Your task to perform on an android device: toggle notifications settings in the gmail app Image 0: 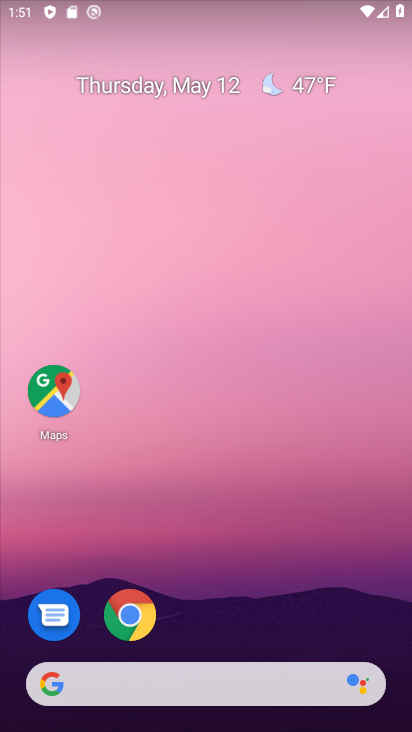
Step 0: drag from (284, 615) to (243, 132)
Your task to perform on an android device: toggle notifications settings in the gmail app Image 1: 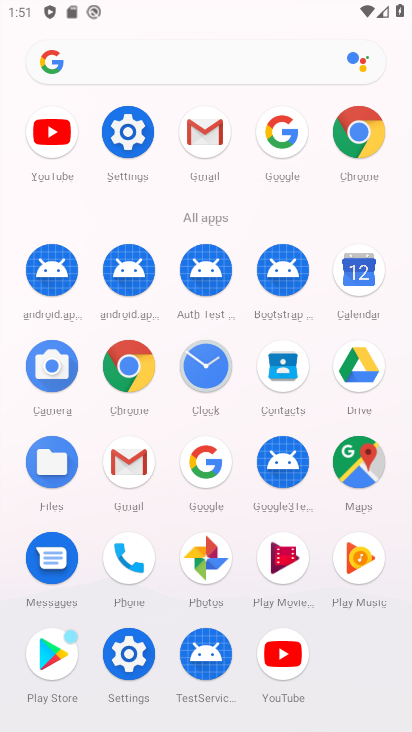
Step 1: click (205, 129)
Your task to perform on an android device: toggle notifications settings in the gmail app Image 2: 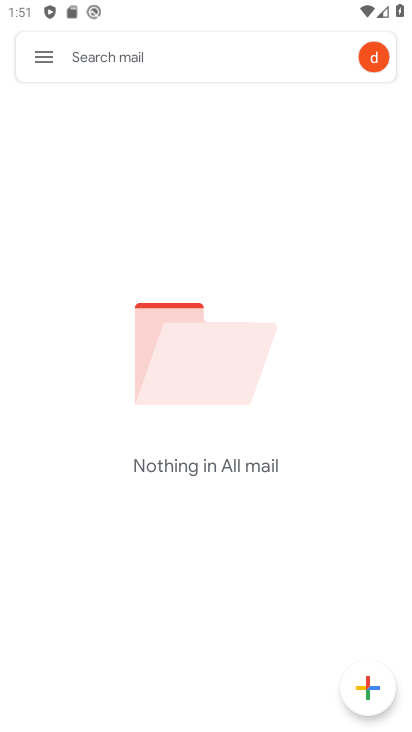
Step 2: click (39, 47)
Your task to perform on an android device: toggle notifications settings in the gmail app Image 3: 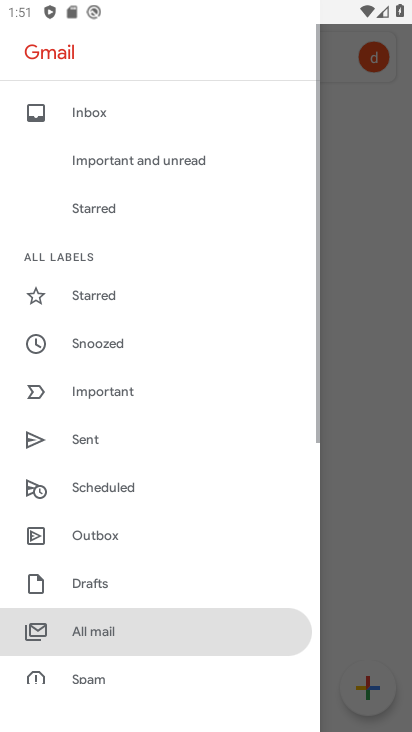
Step 3: drag from (141, 604) to (129, 127)
Your task to perform on an android device: toggle notifications settings in the gmail app Image 4: 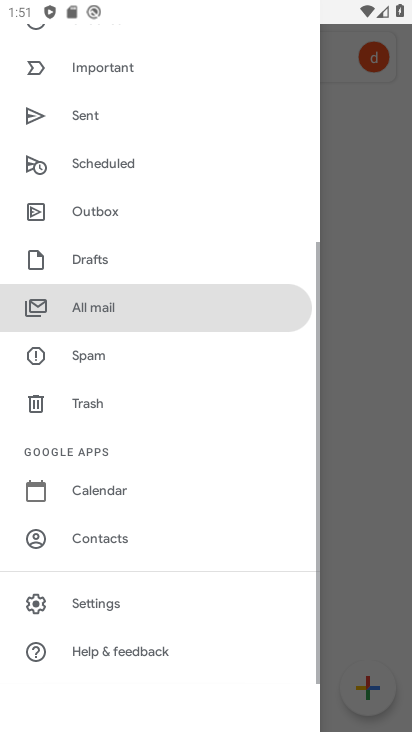
Step 4: click (96, 597)
Your task to perform on an android device: toggle notifications settings in the gmail app Image 5: 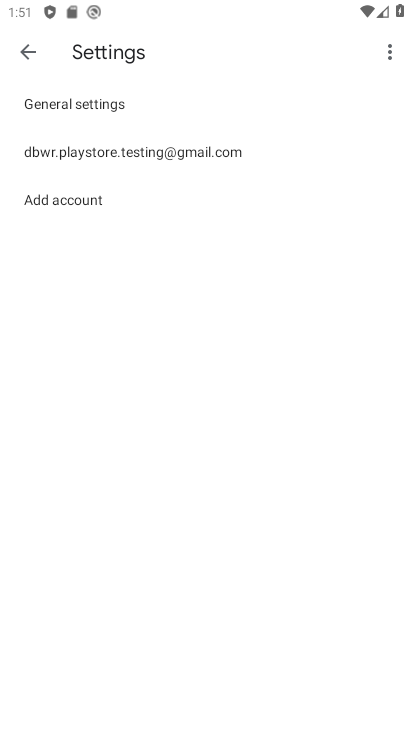
Step 5: click (82, 160)
Your task to perform on an android device: toggle notifications settings in the gmail app Image 6: 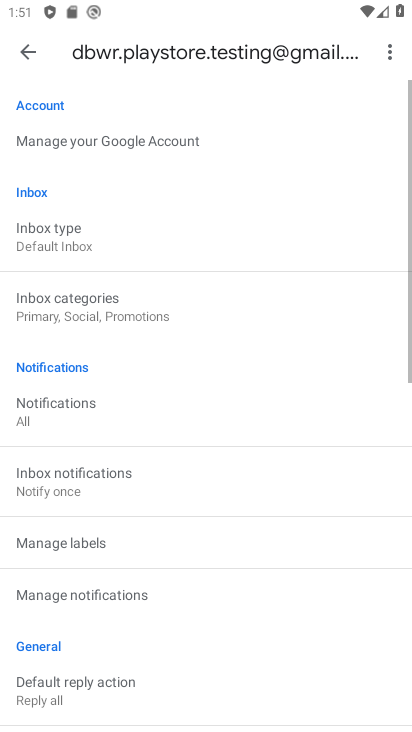
Step 6: click (74, 405)
Your task to perform on an android device: toggle notifications settings in the gmail app Image 7: 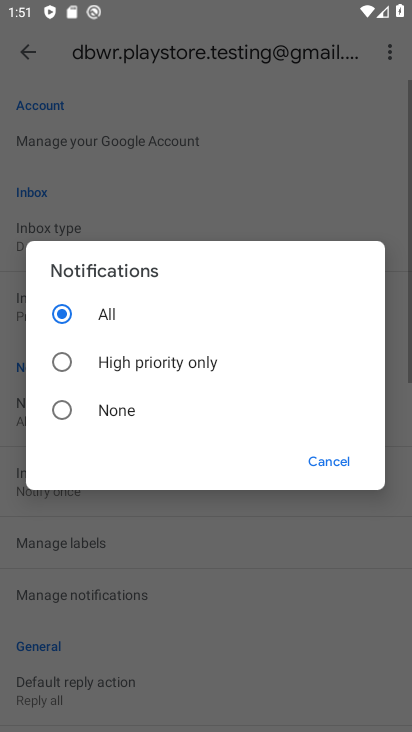
Step 7: click (59, 415)
Your task to perform on an android device: toggle notifications settings in the gmail app Image 8: 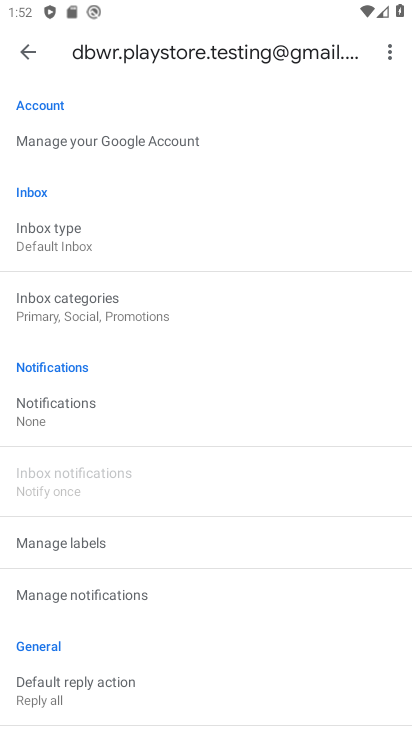
Step 8: task complete